Your task to perform on an android device: Open ESPN.com Image 0: 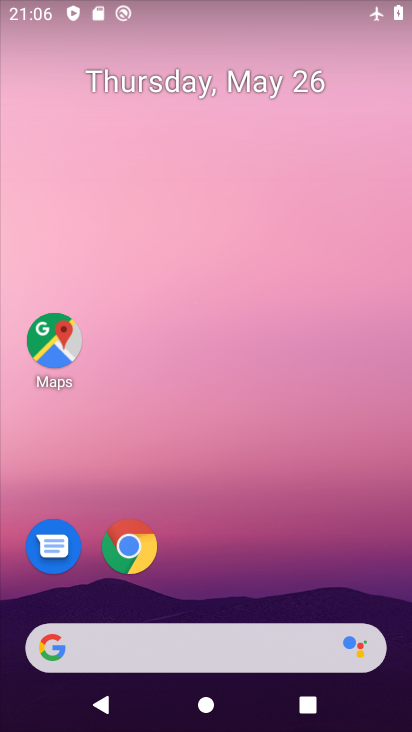
Step 0: click (143, 553)
Your task to perform on an android device: Open ESPN.com Image 1: 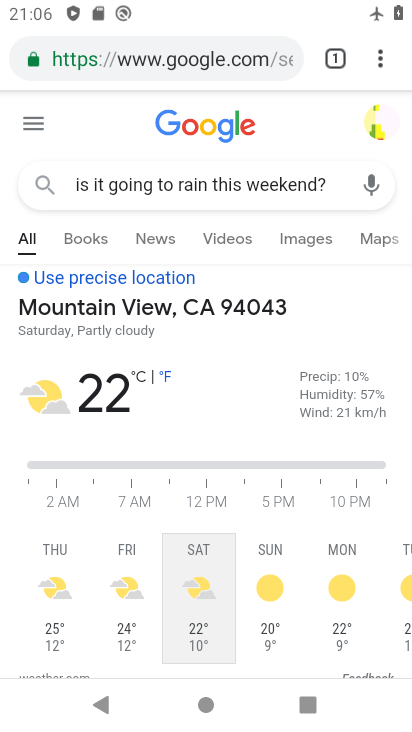
Step 1: click (215, 59)
Your task to perform on an android device: Open ESPN.com Image 2: 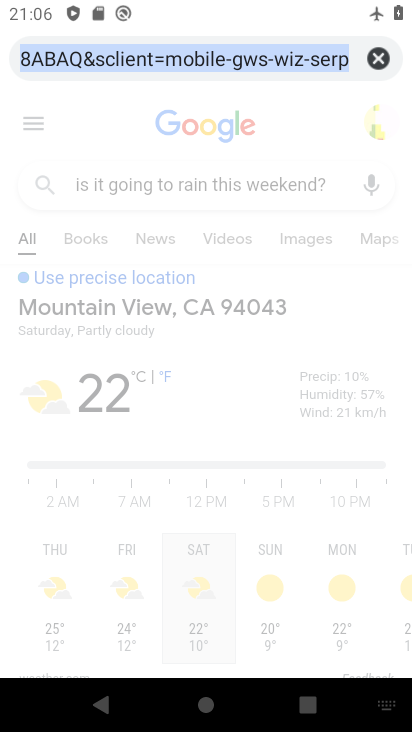
Step 2: type "espn.com"
Your task to perform on an android device: Open ESPN.com Image 3: 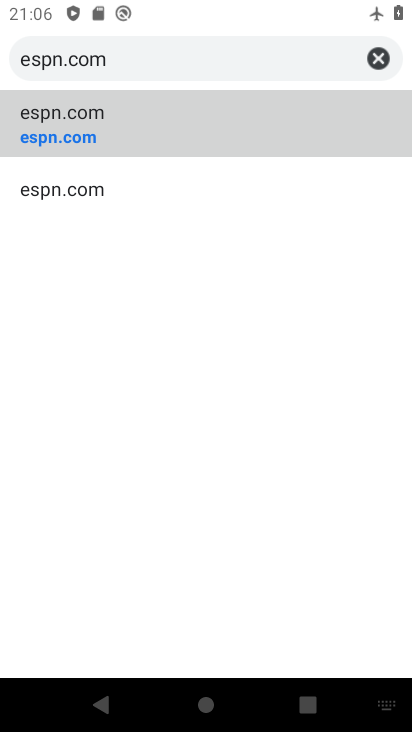
Step 3: click (42, 138)
Your task to perform on an android device: Open ESPN.com Image 4: 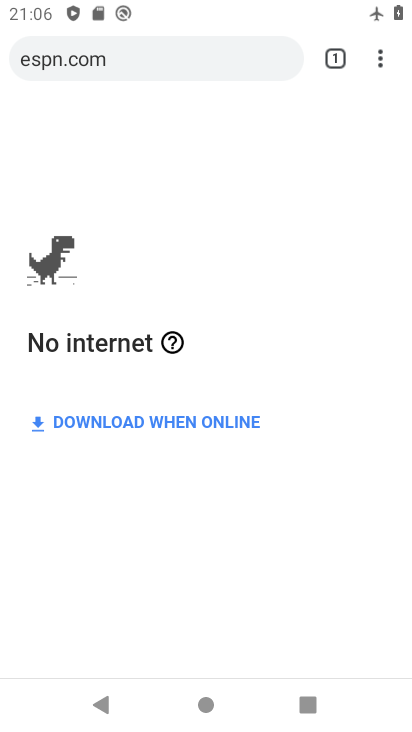
Step 4: task complete